Your task to perform on an android device: toggle notifications settings in the gmail app Image 0: 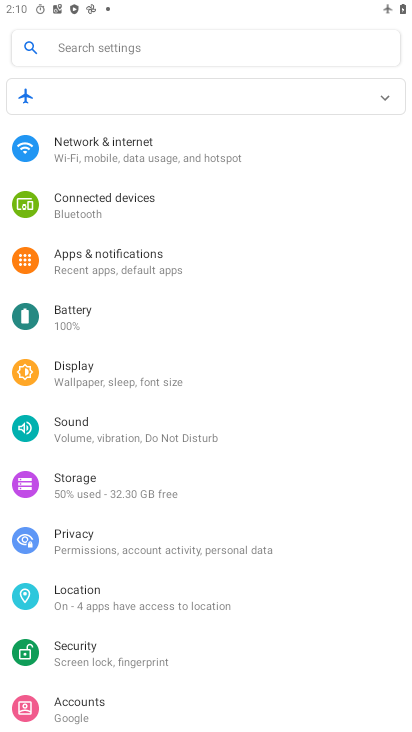
Step 0: press home button
Your task to perform on an android device: toggle notifications settings in the gmail app Image 1: 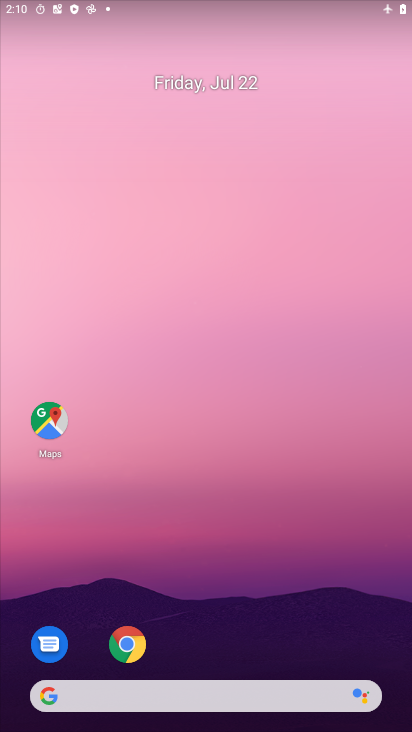
Step 1: drag from (261, 701) to (198, 188)
Your task to perform on an android device: toggle notifications settings in the gmail app Image 2: 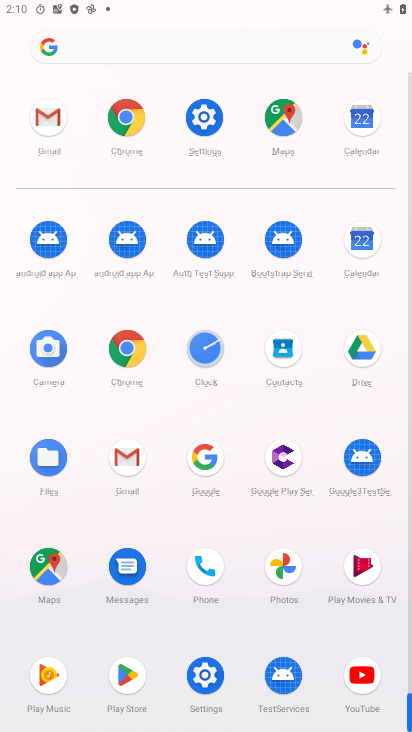
Step 2: click (125, 479)
Your task to perform on an android device: toggle notifications settings in the gmail app Image 3: 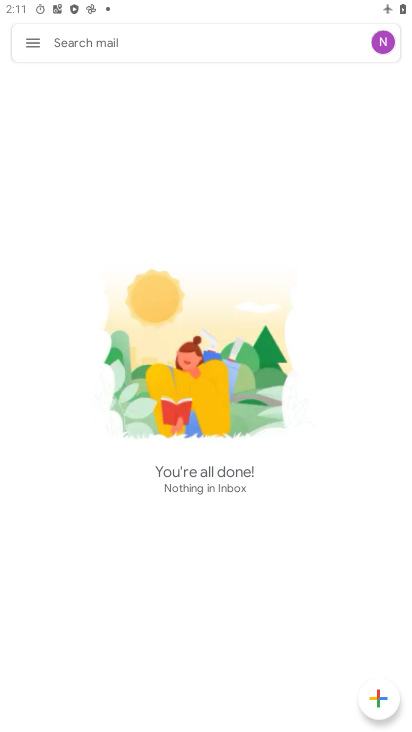
Step 3: click (38, 37)
Your task to perform on an android device: toggle notifications settings in the gmail app Image 4: 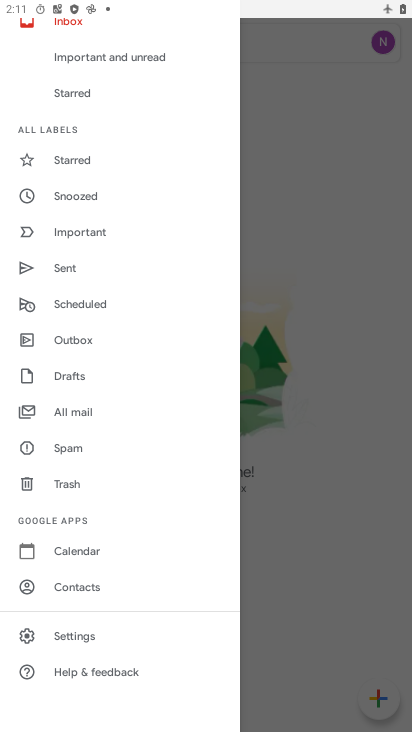
Step 4: click (78, 635)
Your task to perform on an android device: toggle notifications settings in the gmail app Image 5: 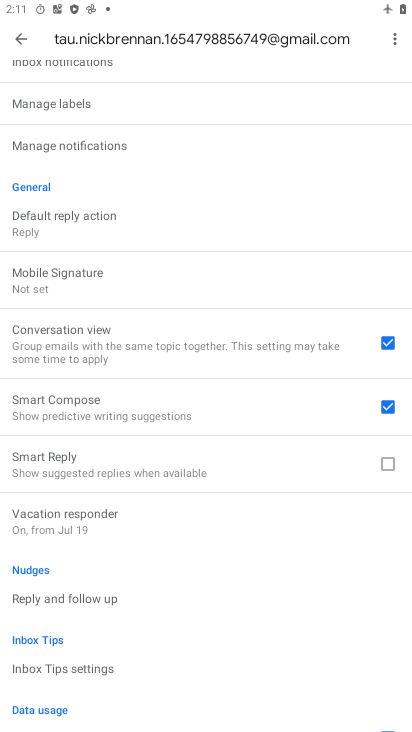
Step 5: click (22, 39)
Your task to perform on an android device: toggle notifications settings in the gmail app Image 6: 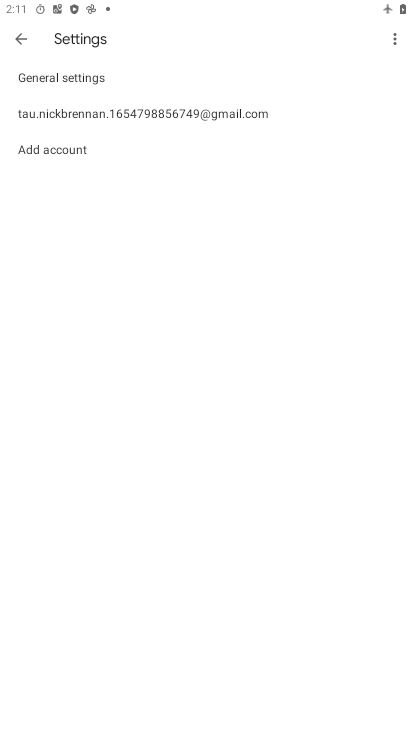
Step 6: click (84, 72)
Your task to perform on an android device: toggle notifications settings in the gmail app Image 7: 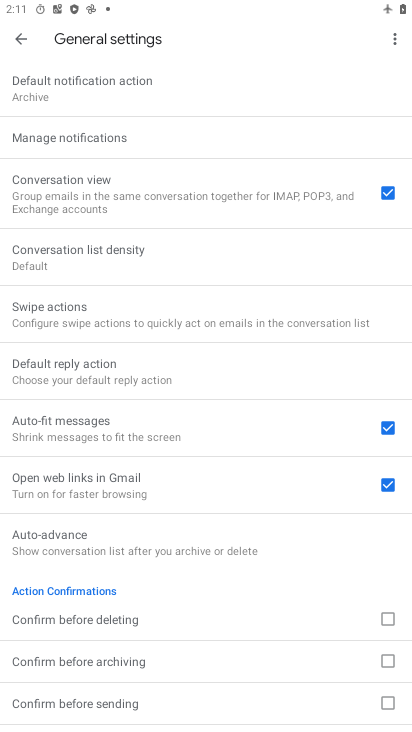
Step 7: click (116, 142)
Your task to perform on an android device: toggle notifications settings in the gmail app Image 8: 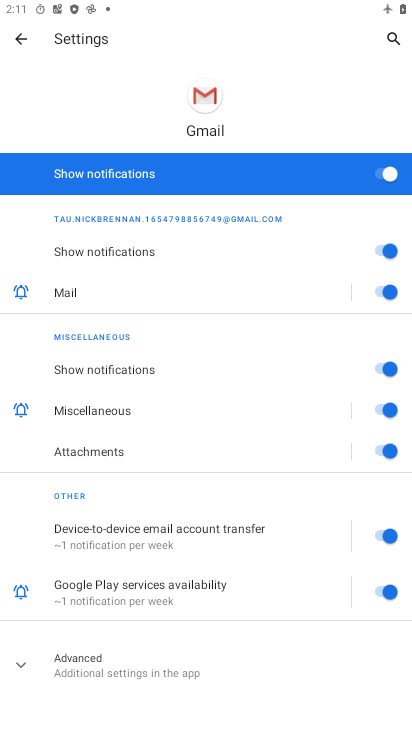
Step 8: click (364, 176)
Your task to perform on an android device: toggle notifications settings in the gmail app Image 9: 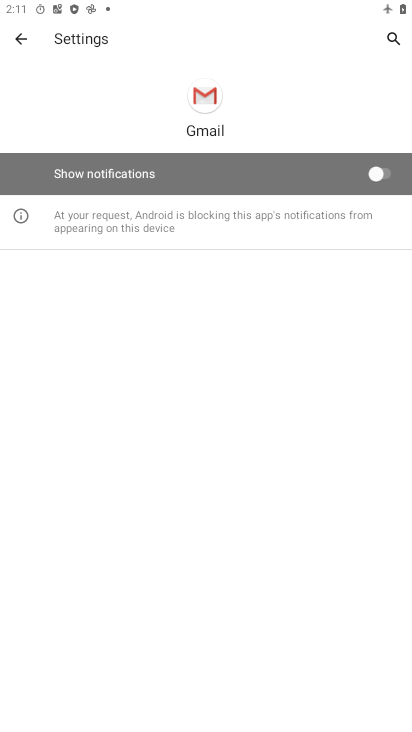
Step 9: task complete